Your task to perform on an android device: change the clock style Image 0: 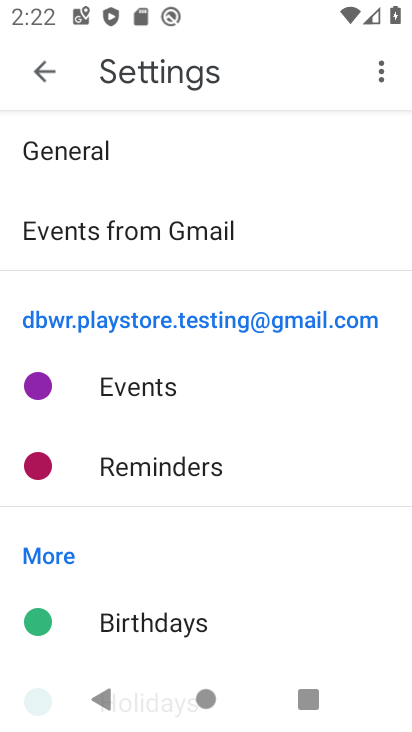
Step 0: press home button
Your task to perform on an android device: change the clock style Image 1: 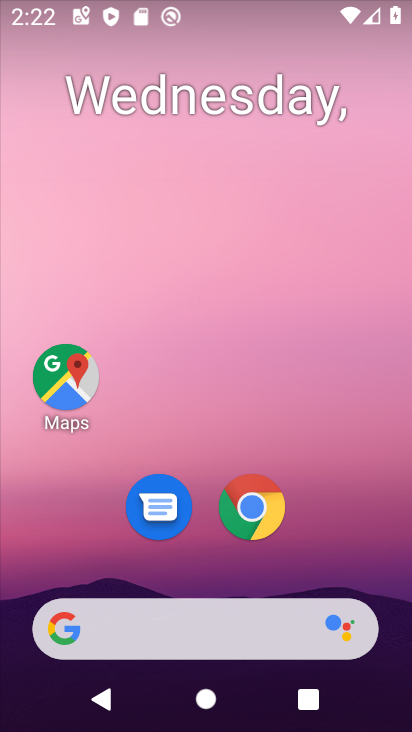
Step 1: drag from (317, 545) to (362, 148)
Your task to perform on an android device: change the clock style Image 2: 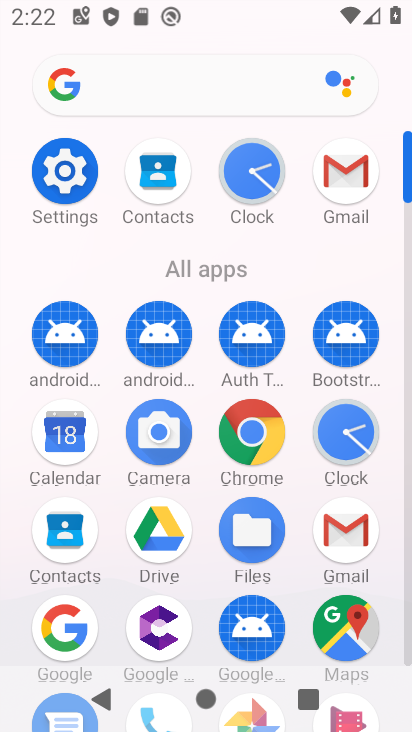
Step 2: click (245, 178)
Your task to perform on an android device: change the clock style Image 3: 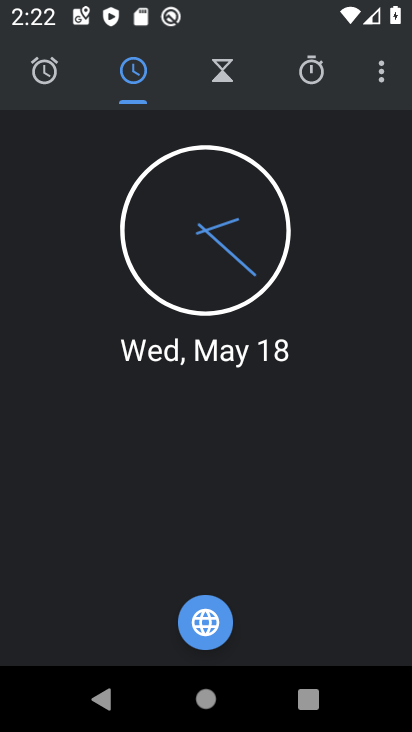
Step 3: click (391, 73)
Your task to perform on an android device: change the clock style Image 4: 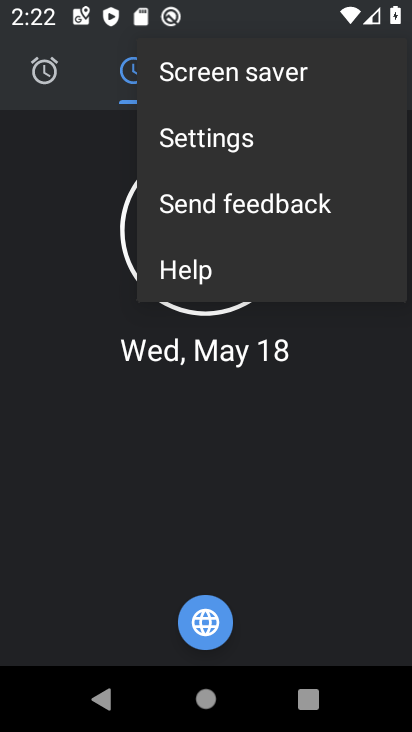
Step 4: click (238, 152)
Your task to perform on an android device: change the clock style Image 5: 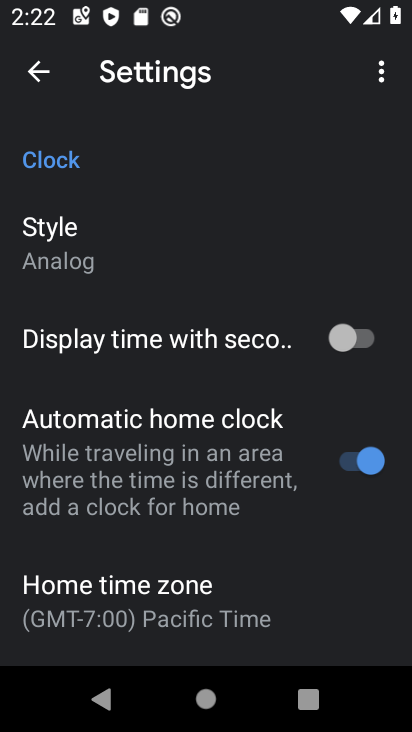
Step 5: click (107, 268)
Your task to perform on an android device: change the clock style Image 6: 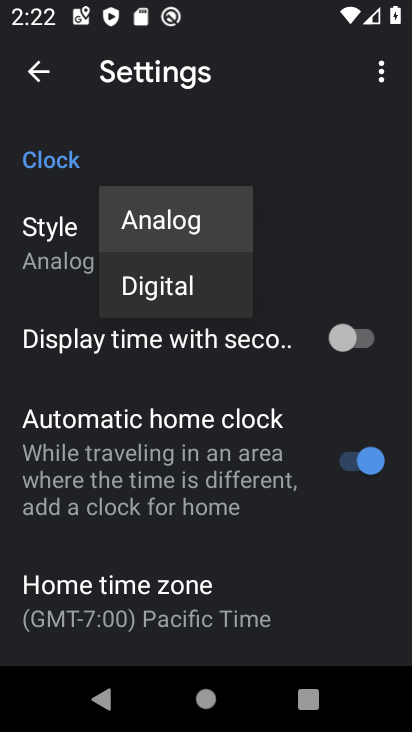
Step 6: click (140, 283)
Your task to perform on an android device: change the clock style Image 7: 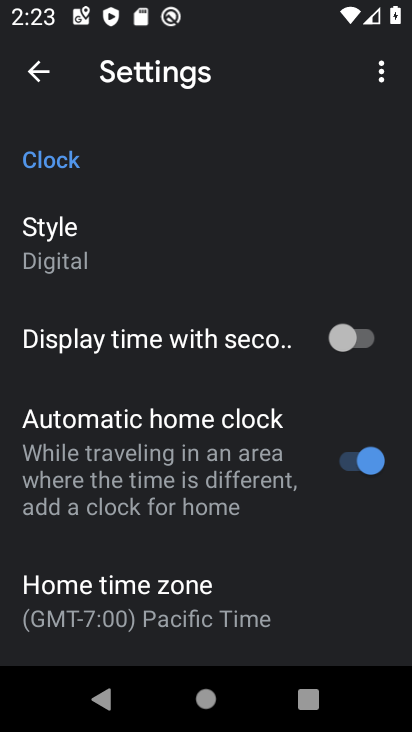
Step 7: task complete